Your task to perform on an android device: turn on sleep mode Image 0: 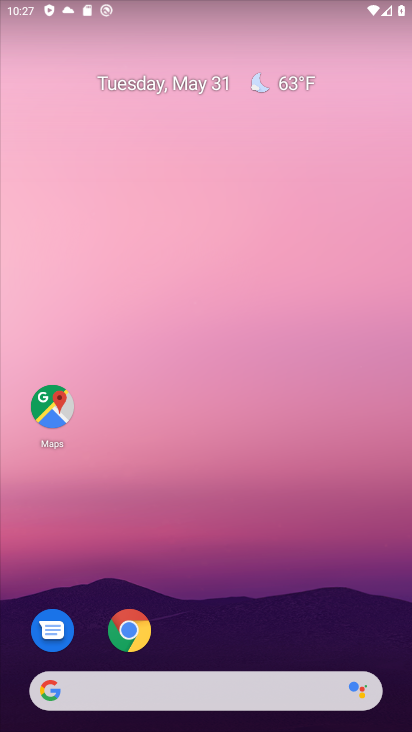
Step 0: drag from (200, 633) to (157, 181)
Your task to perform on an android device: turn on sleep mode Image 1: 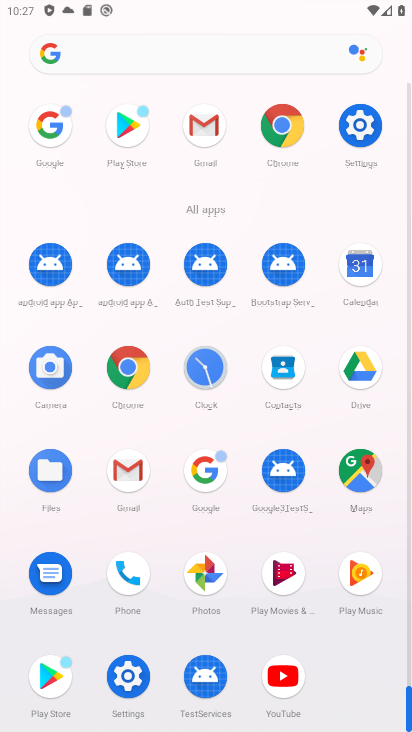
Step 1: click (352, 141)
Your task to perform on an android device: turn on sleep mode Image 2: 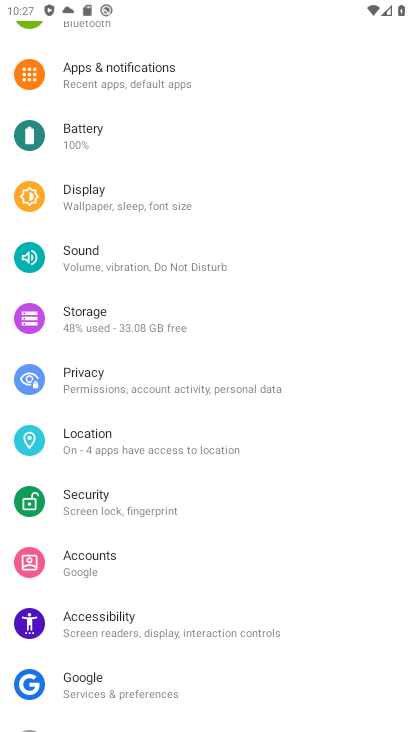
Step 2: task complete